Your task to perform on an android device: turn on data saver in the chrome app Image 0: 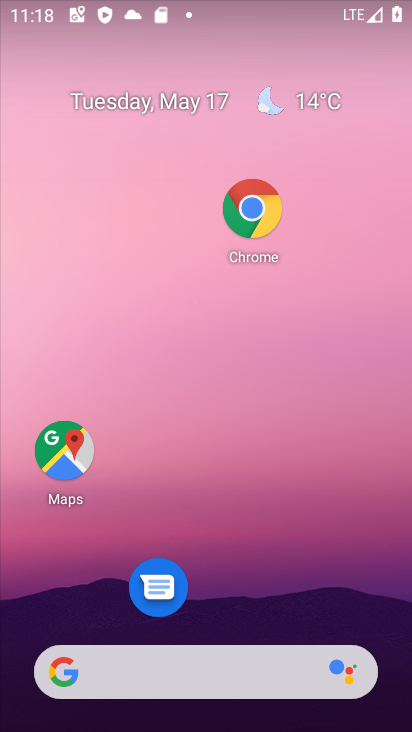
Step 0: click (245, 210)
Your task to perform on an android device: turn on data saver in the chrome app Image 1: 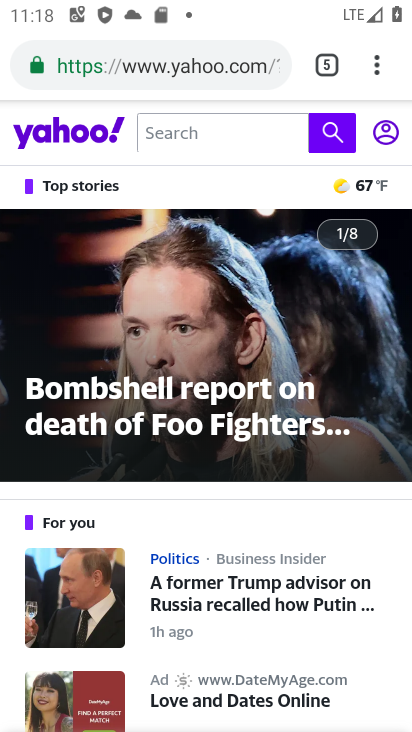
Step 1: click (386, 59)
Your task to perform on an android device: turn on data saver in the chrome app Image 2: 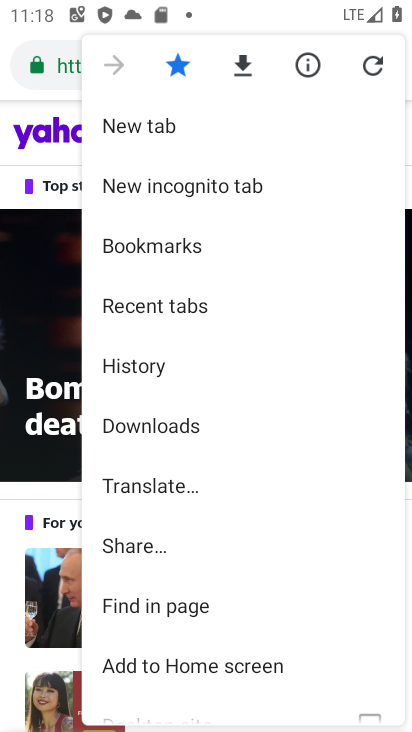
Step 2: drag from (233, 640) to (269, 186)
Your task to perform on an android device: turn on data saver in the chrome app Image 3: 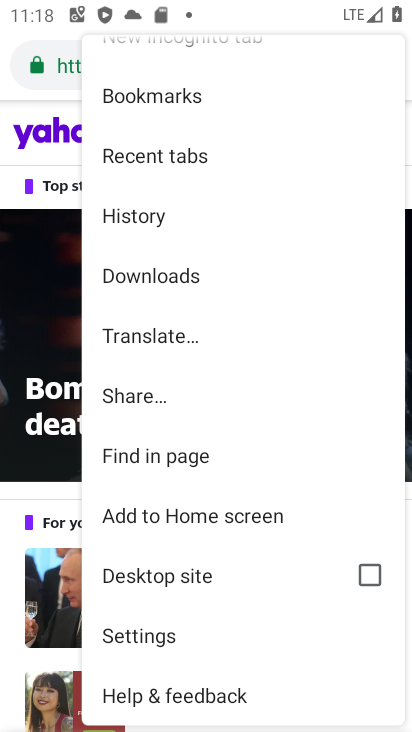
Step 3: click (174, 622)
Your task to perform on an android device: turn on data saver in the chrome app Image 4: 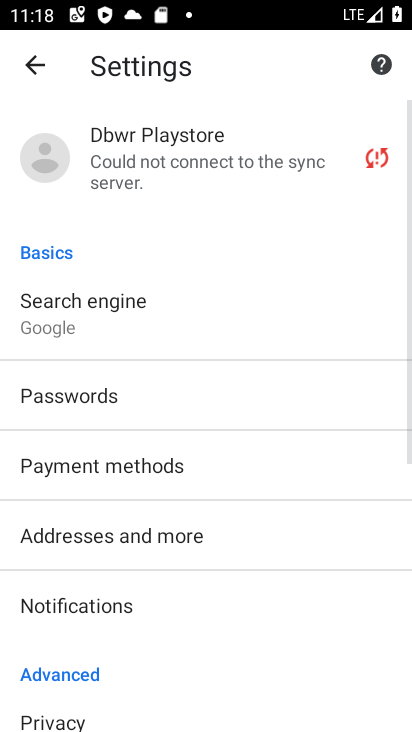
Step 4: drag from (208, 622) to (246, 86)
Your task to perform on an android device: turn on data saver in the chrome app Image 5: 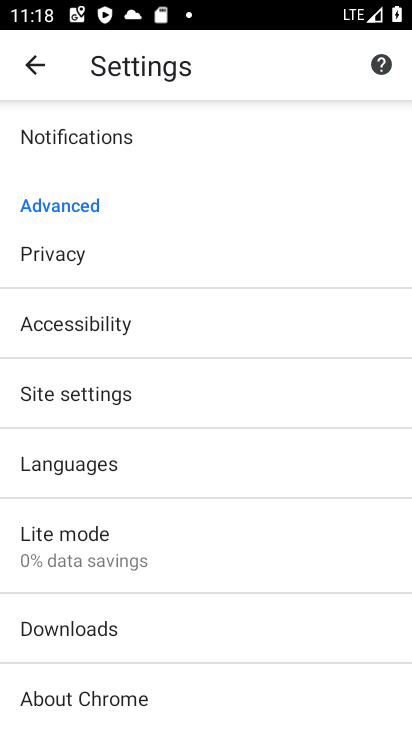
Step 5: click (108, 533)
Your task to perform on an android device: turn on data saver in the chrome app Image 6: 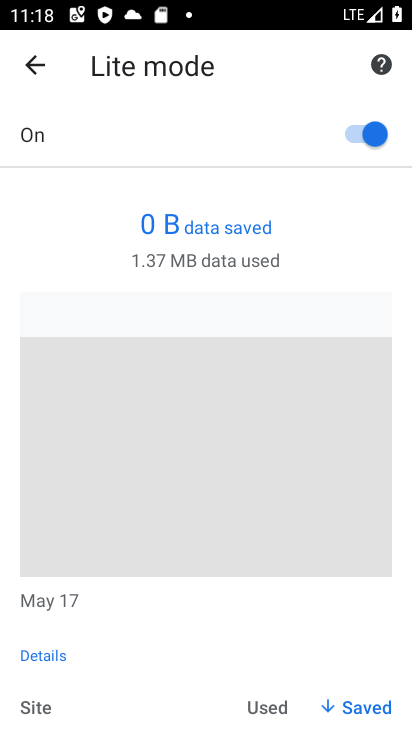
Step 6: task complete